Your task to perform on an android device: Search for Italian restaurants on Maps Image 0: 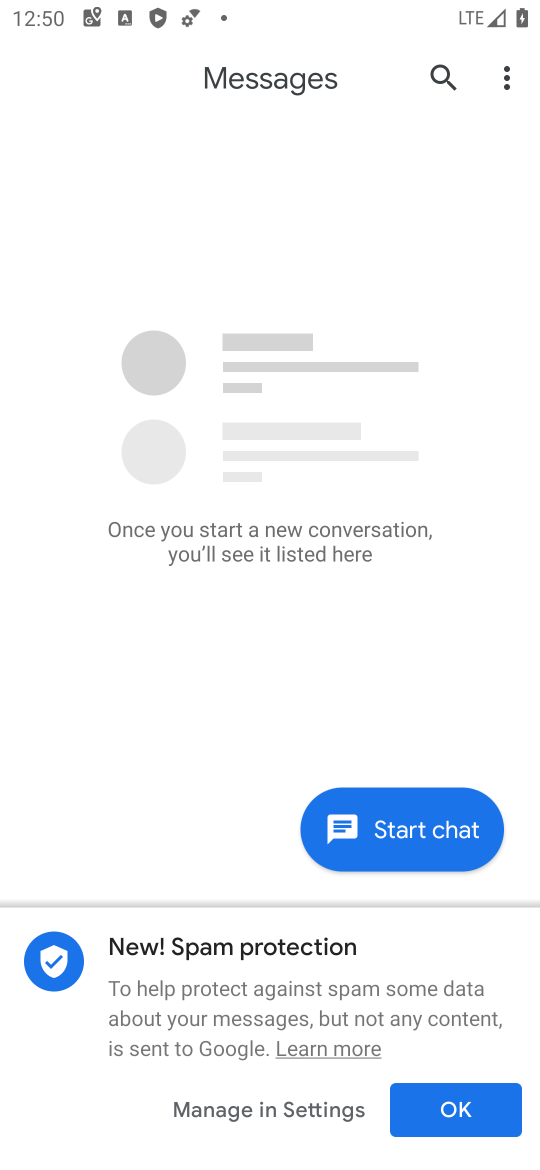
Step 0: press home button
Your task to perform on an android device: Search for Italian restaurants on Maps Image 1: 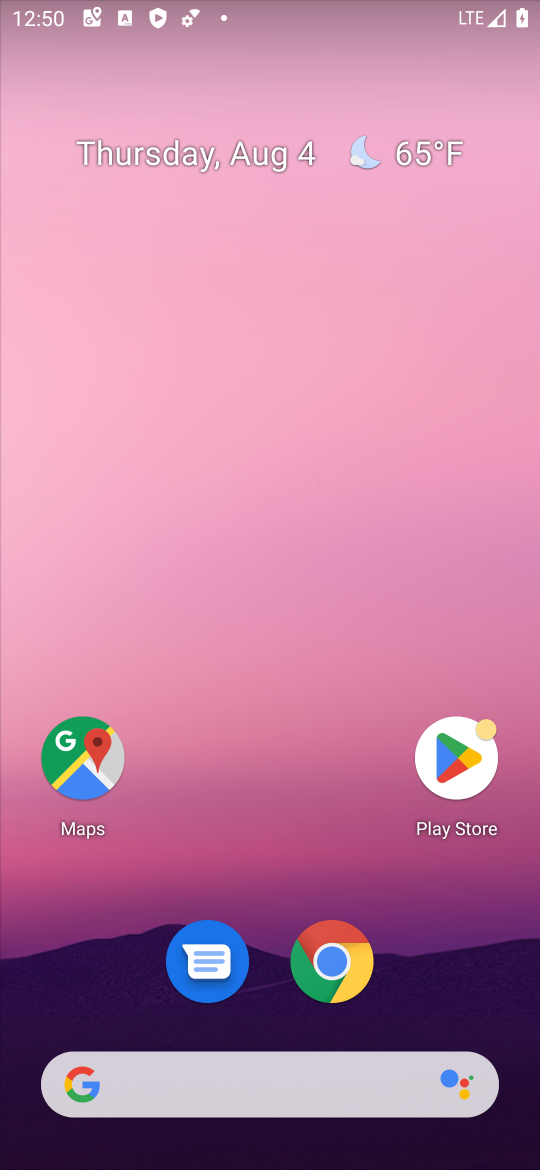
Step 1: click (79, 745)
Your task to perform on an android device: Search for Italian restaurants on Maps Image 2: 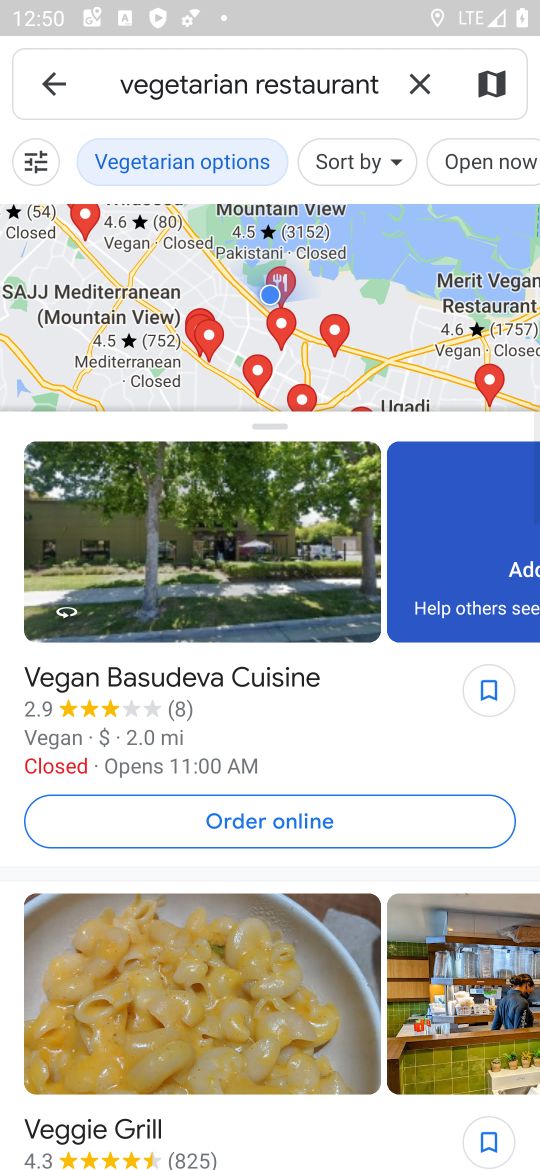
Step 2: click (412, 72)
Your task to perform on an android device: Search for Italian restaurants on Maps Image 3: 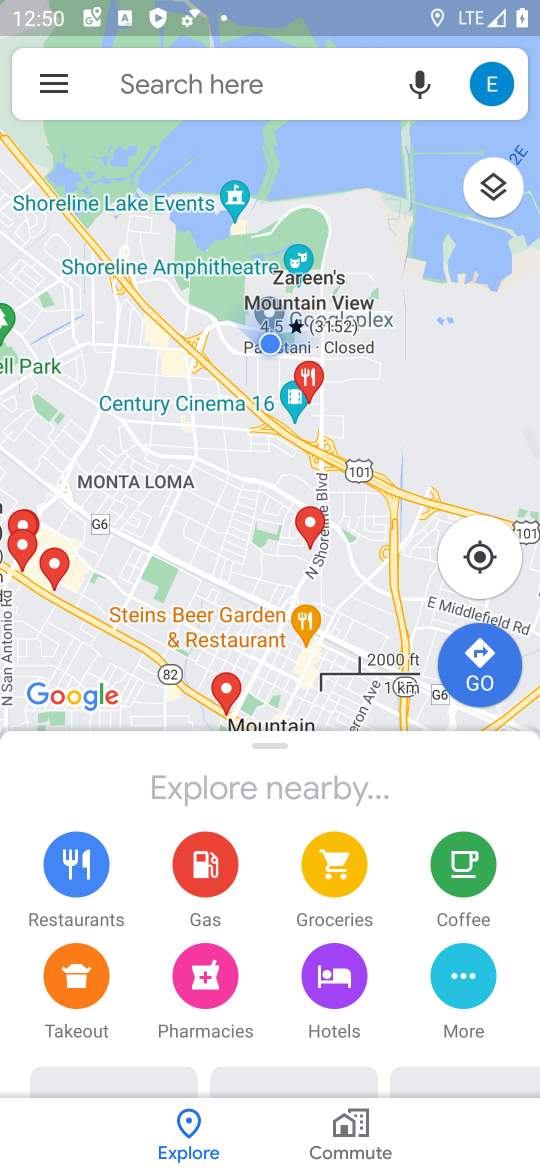
Step 3: click (334, 84)
Your task to perform on an android device: Search for Italian restaurants on Maps Image 4: 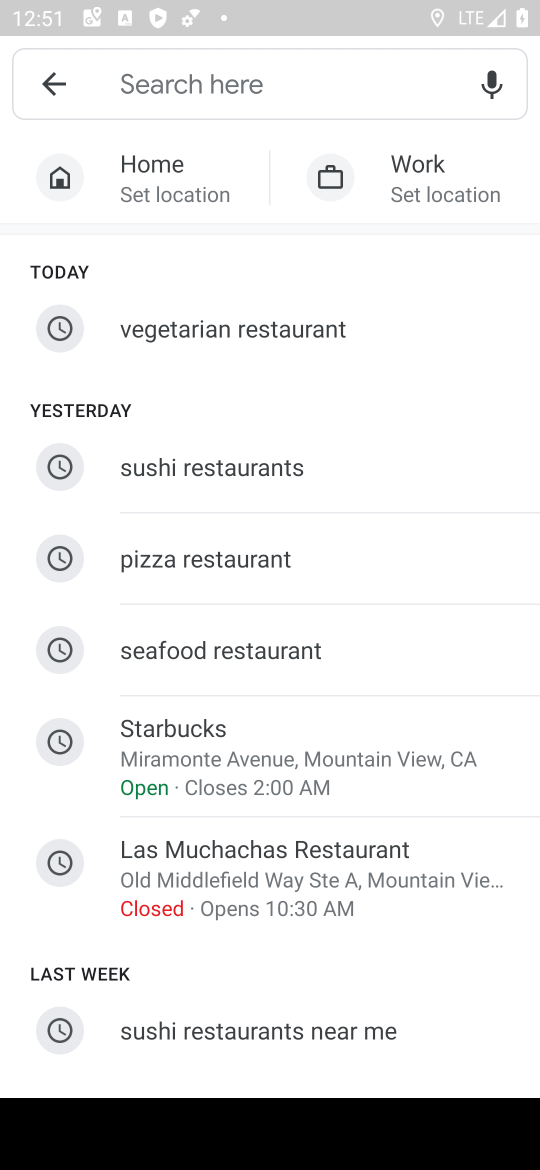
Step 4: type "italian restaurants"
Your task to perform on an android device: Search for Italian restaurants on Maps Image 5: 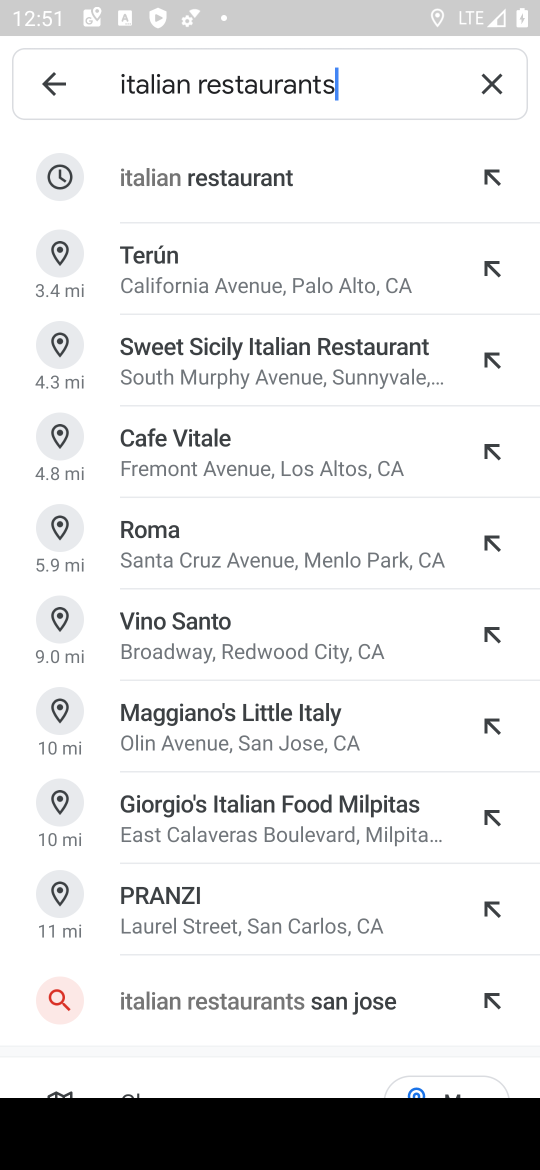
Step 5: click (226, 171)
Your task to perform on an android device: Search for Italian restaurants on Maps Image 6: 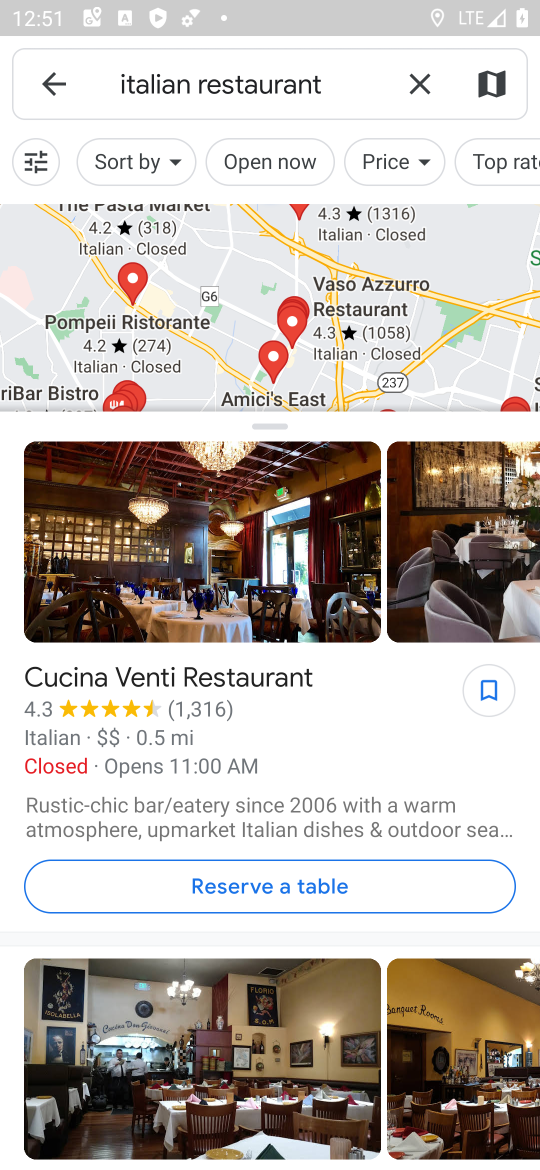
Step 6: task complete